Your task to perform on an android device: Show the shopping cart on amazon.com. Image 0: 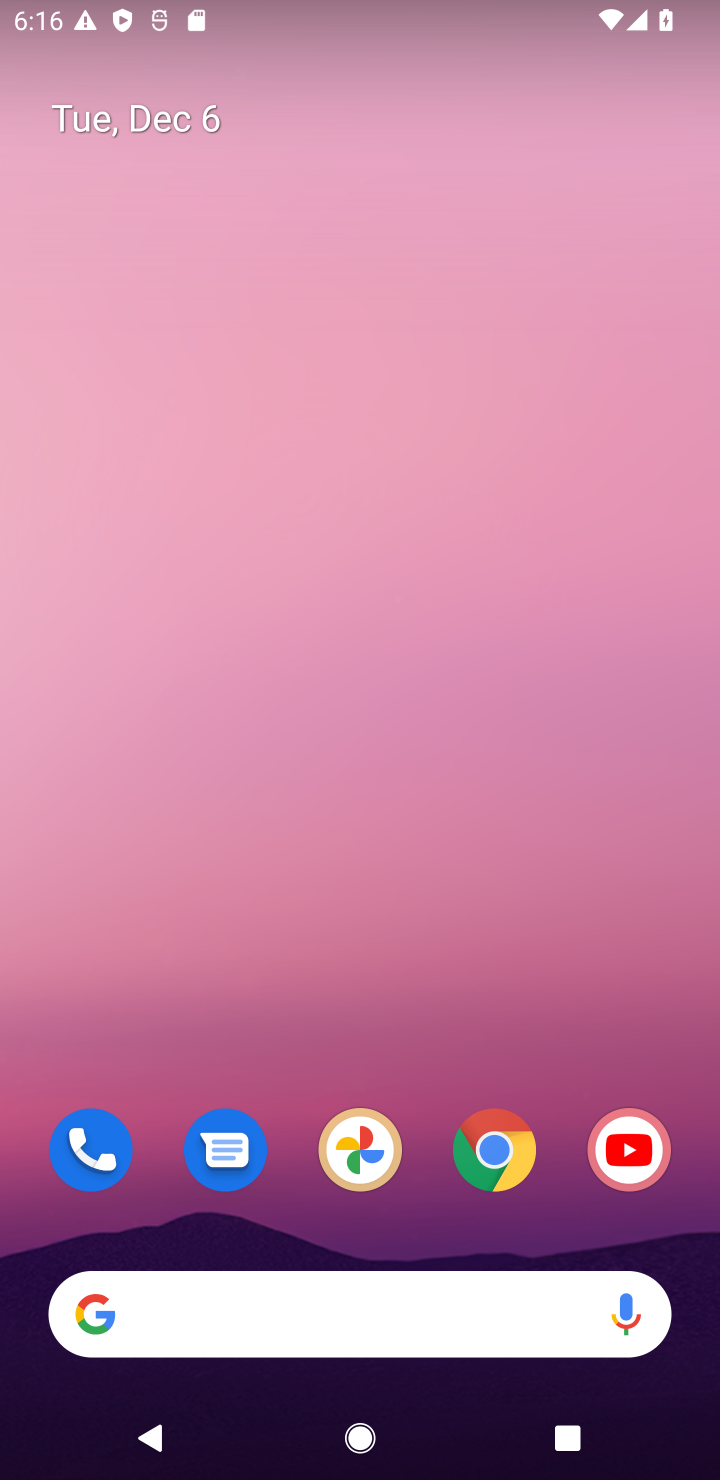
Step 0: click (505, 1162)
Your task to perform on an android device: Show the shopping cart on amazon.com. Image 1: 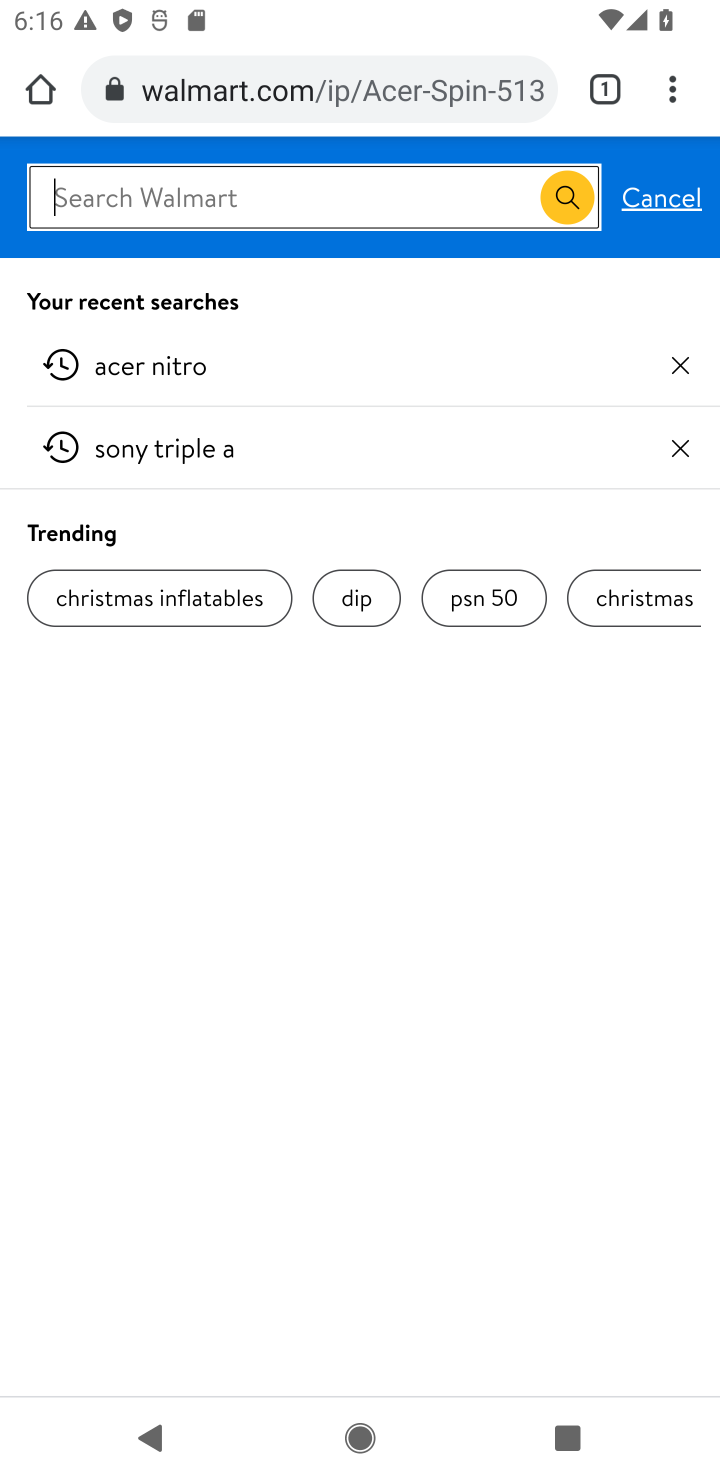
Step 1: click (252, 90)
Your task to perform on an android device: Show the shopping cart on amazon.com. Image 2: 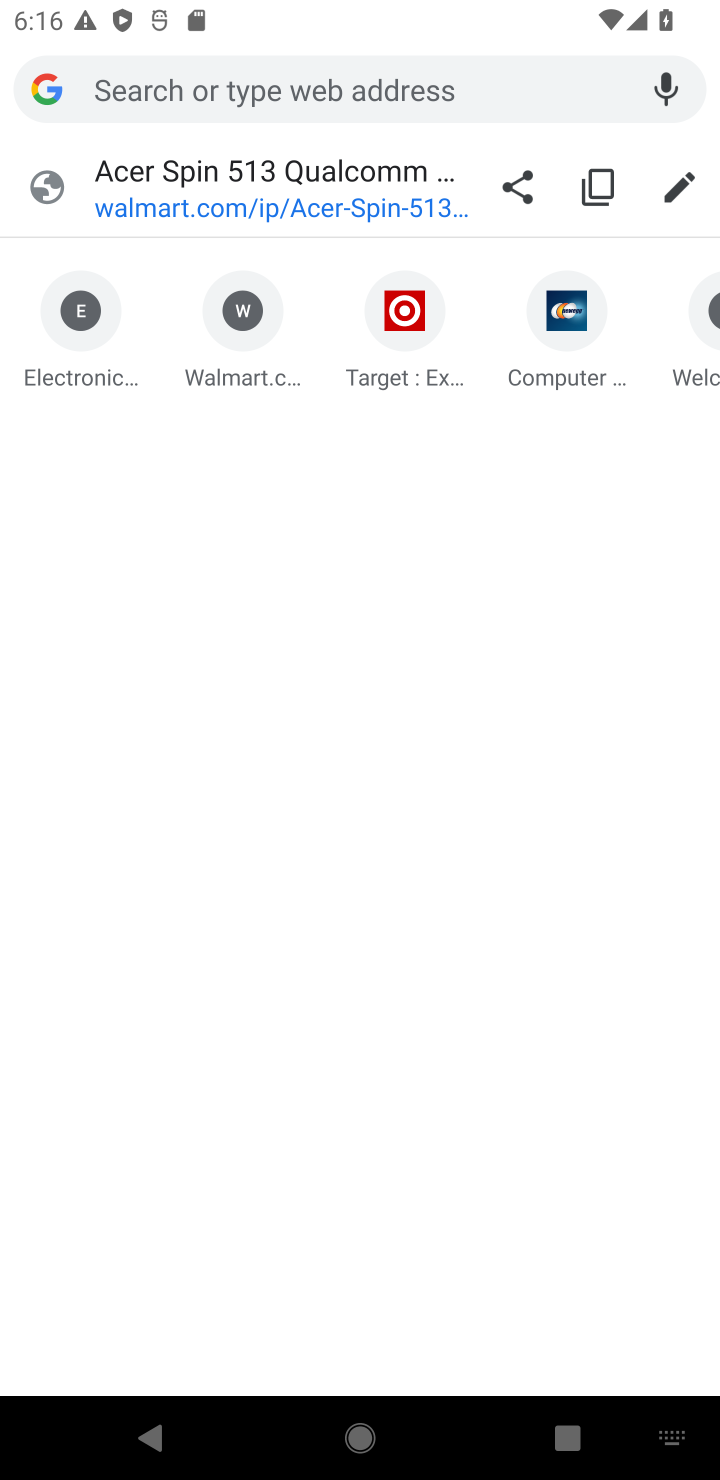
Step 2: type "amazon.com"
Your task to perform on an android device: Show the shopping cart on amazon.com. Image 3: 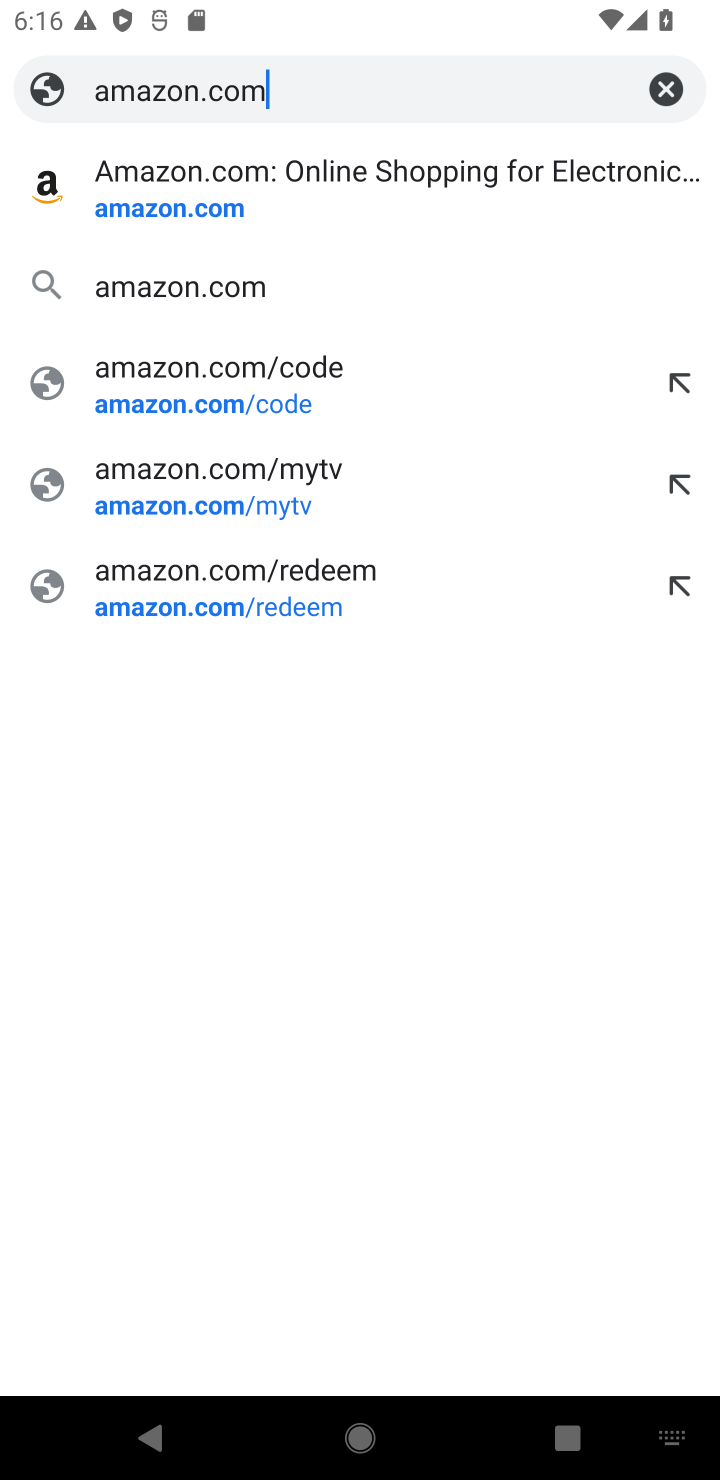
Step 3: click (194, 210)
Your task to perform on an android device: Show the shopping cart on amazon.com. Image 4: 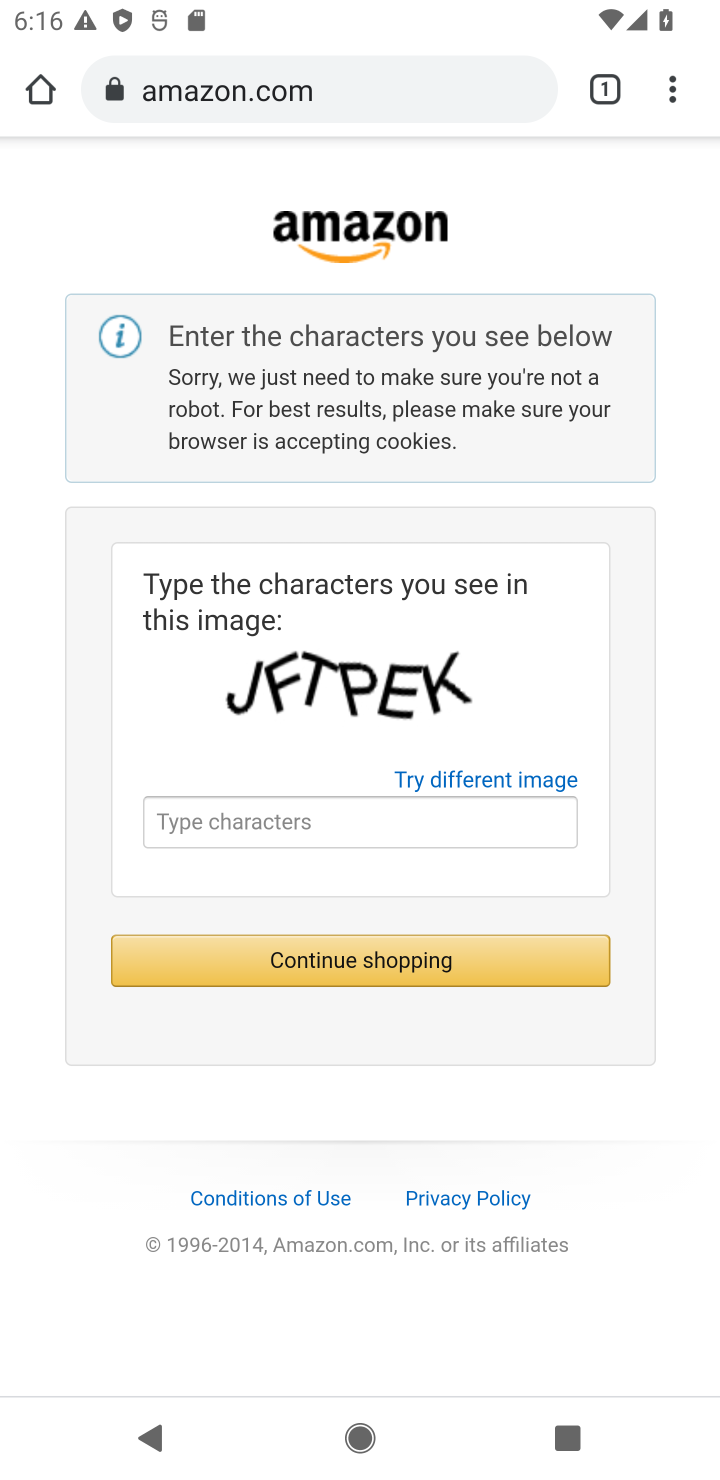
Step 4: press back button
Your task to perform on an android device: Show the shopping cart on amazon.com. Image 5: 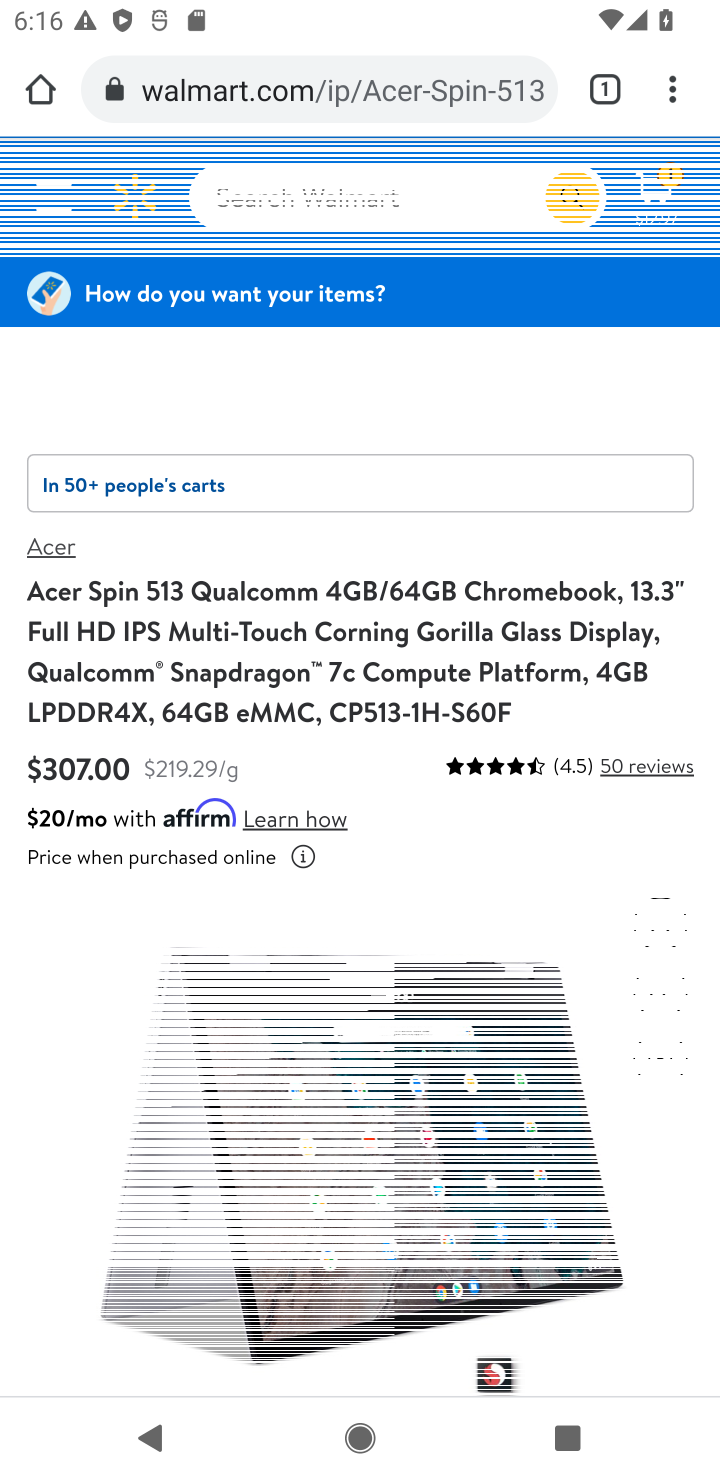
Step 5: click (285, 97)
Your task to perform on an android device: Show the shopping cart on amazon.com. Image 6: 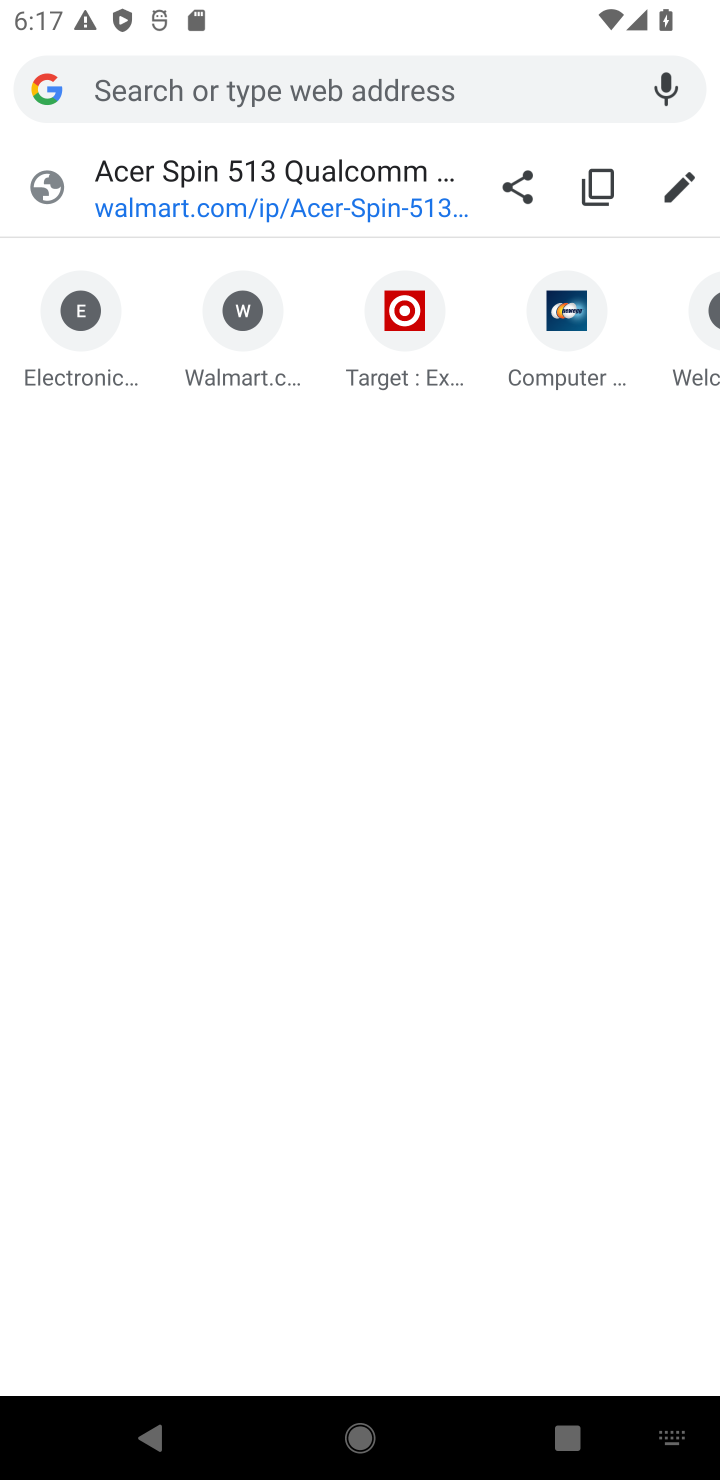
Step 6: type "amazon.com"
Your task to perform on an android device: Show the shopping cart on amazon.com. Image 7: 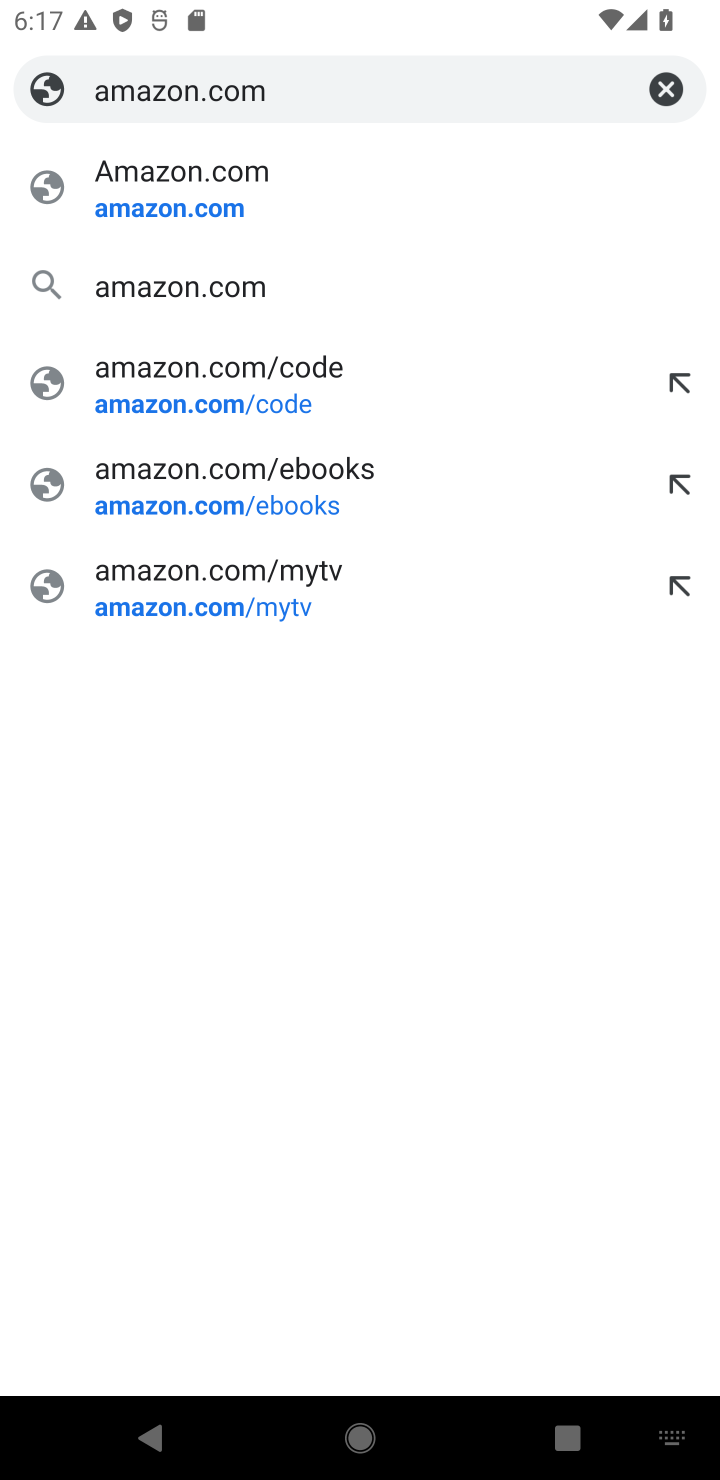
Step 7: click (199, 199)
Your task to perform on an android device: Show the shopping cart on amazon.com. Image 8: 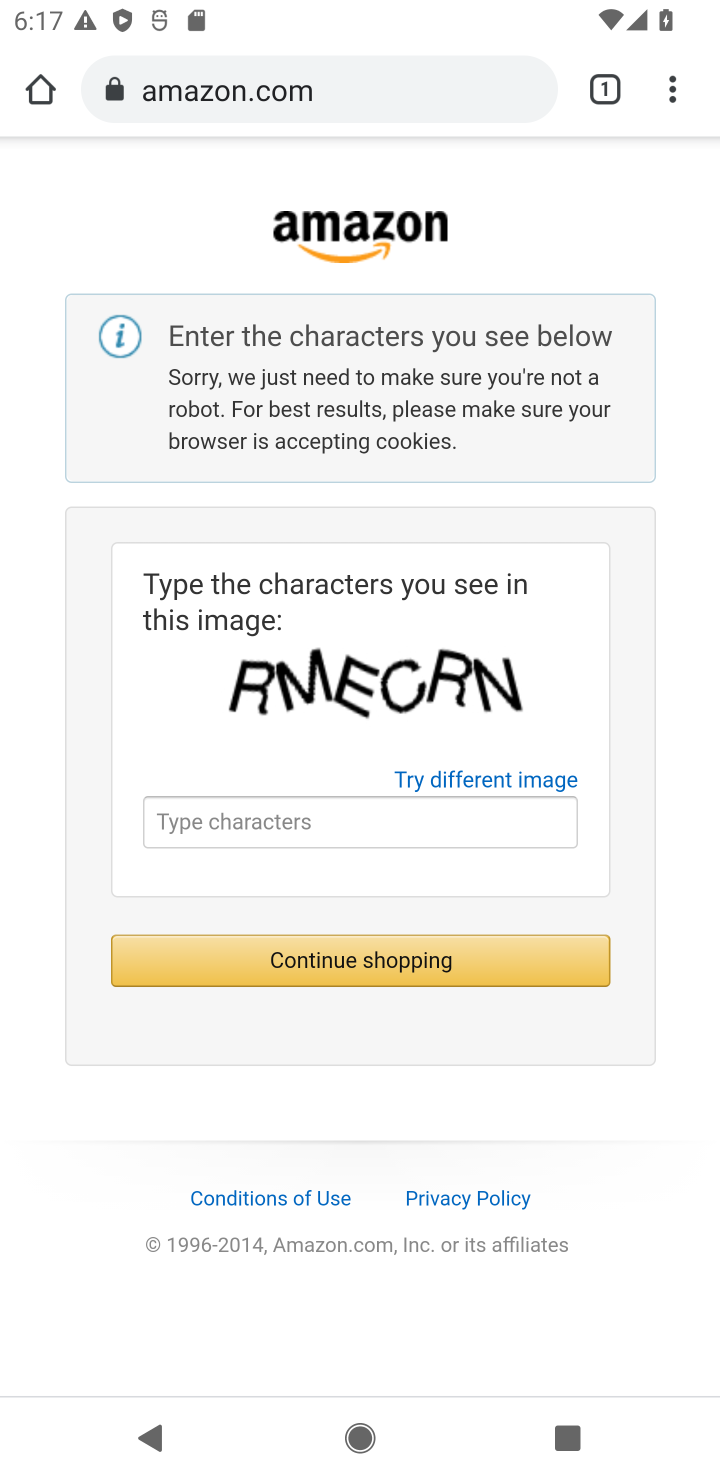
Step 8: click (345, 965)
Your task to perform on an android device: Show the shopping cart on amazon.com. Image 9: 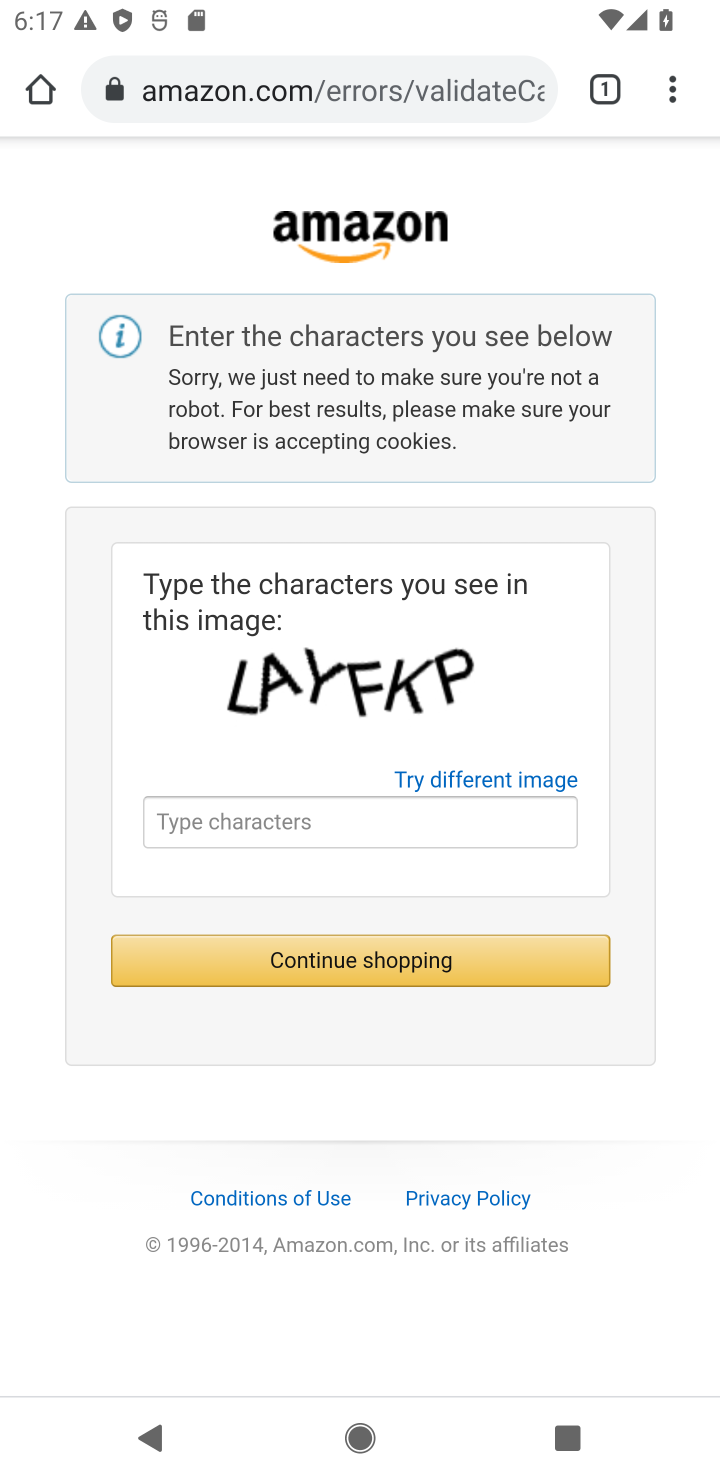
Step 9: click (215, 814)
Your task to perform on an android device: Show the shopping cart on amazon.com. Image 10: 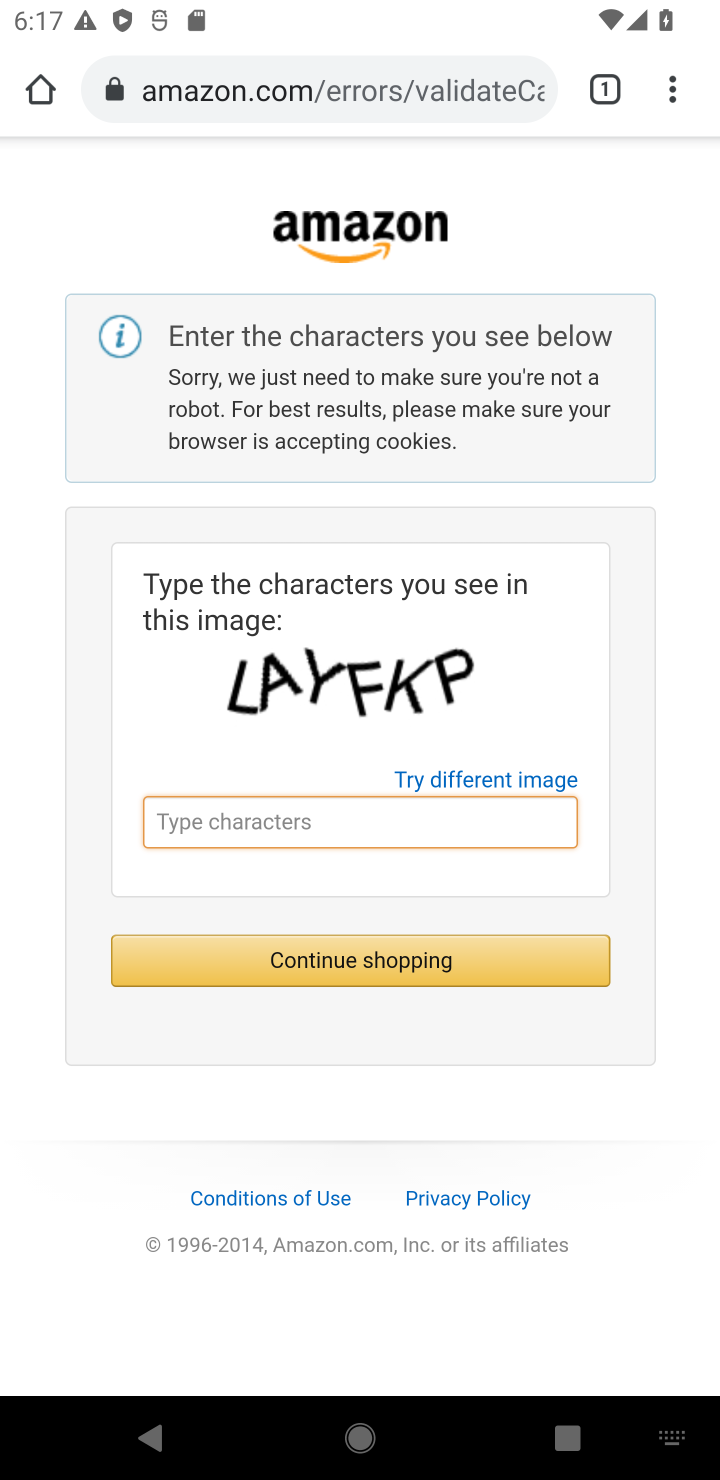
Step 10: type "LAYFKP"
Your task to perform on an android device: Show the shopping cart on amazon.com. Image 11: 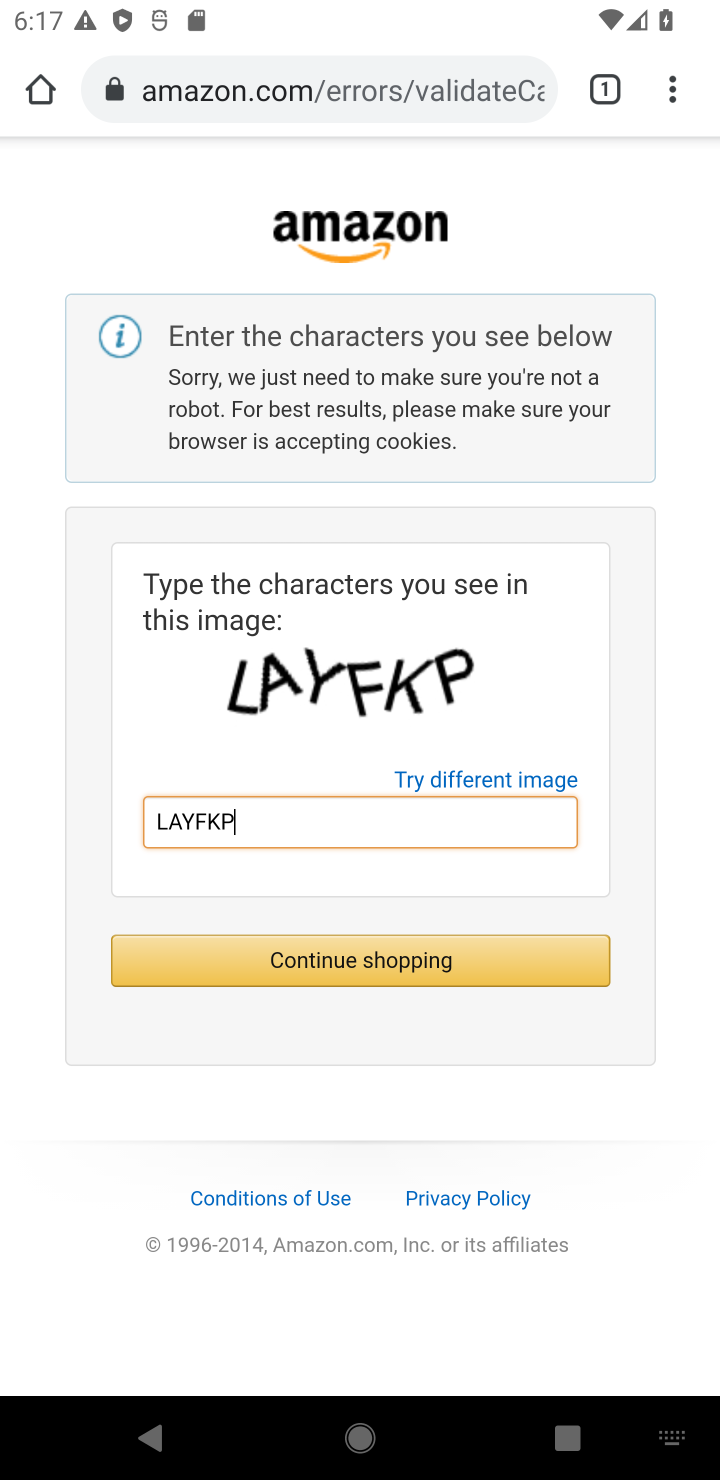
Step 11: click (406, 962)
Your task to perform on an android device: Show the shopping cart on amazon.com. Image 12: 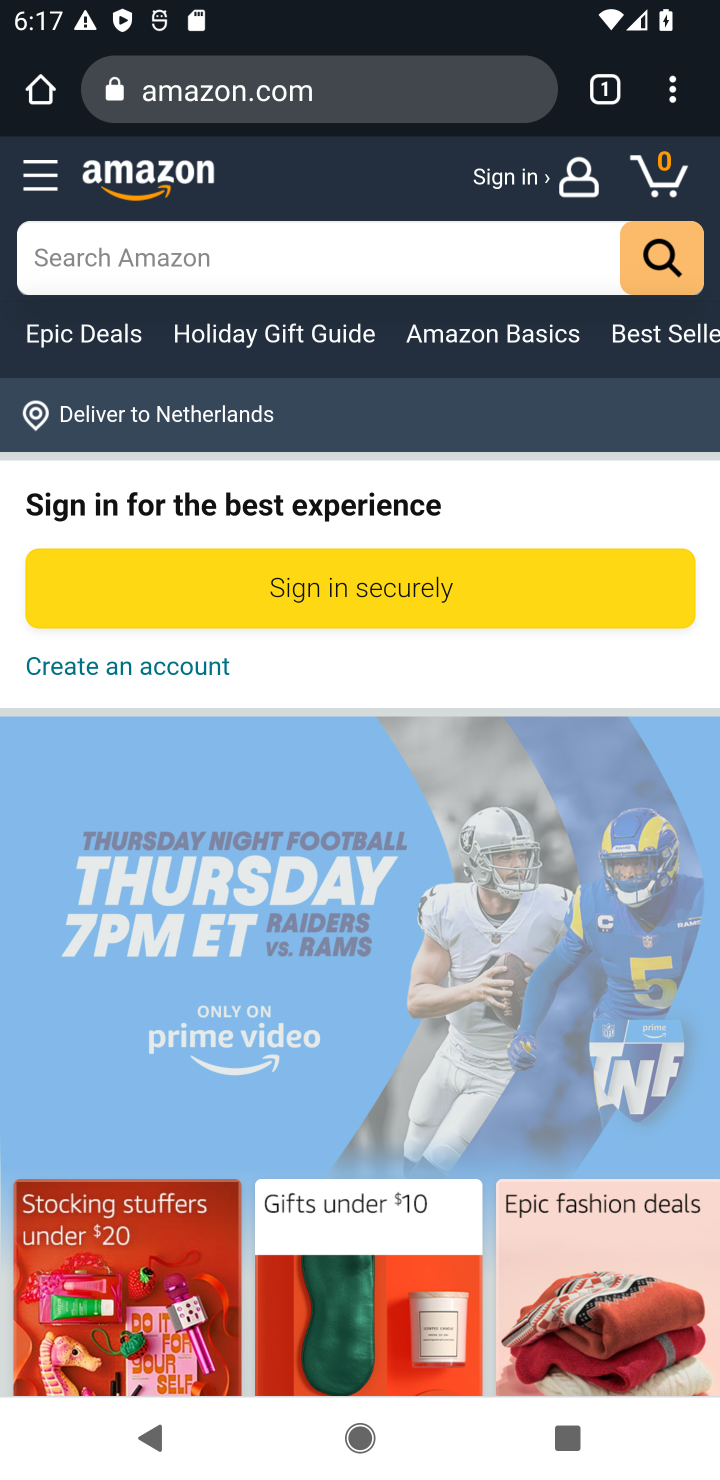
Step 12: click (666, 183)
Your task to perform on an android device: Show the shopping cart on amazon.com. Image 13: 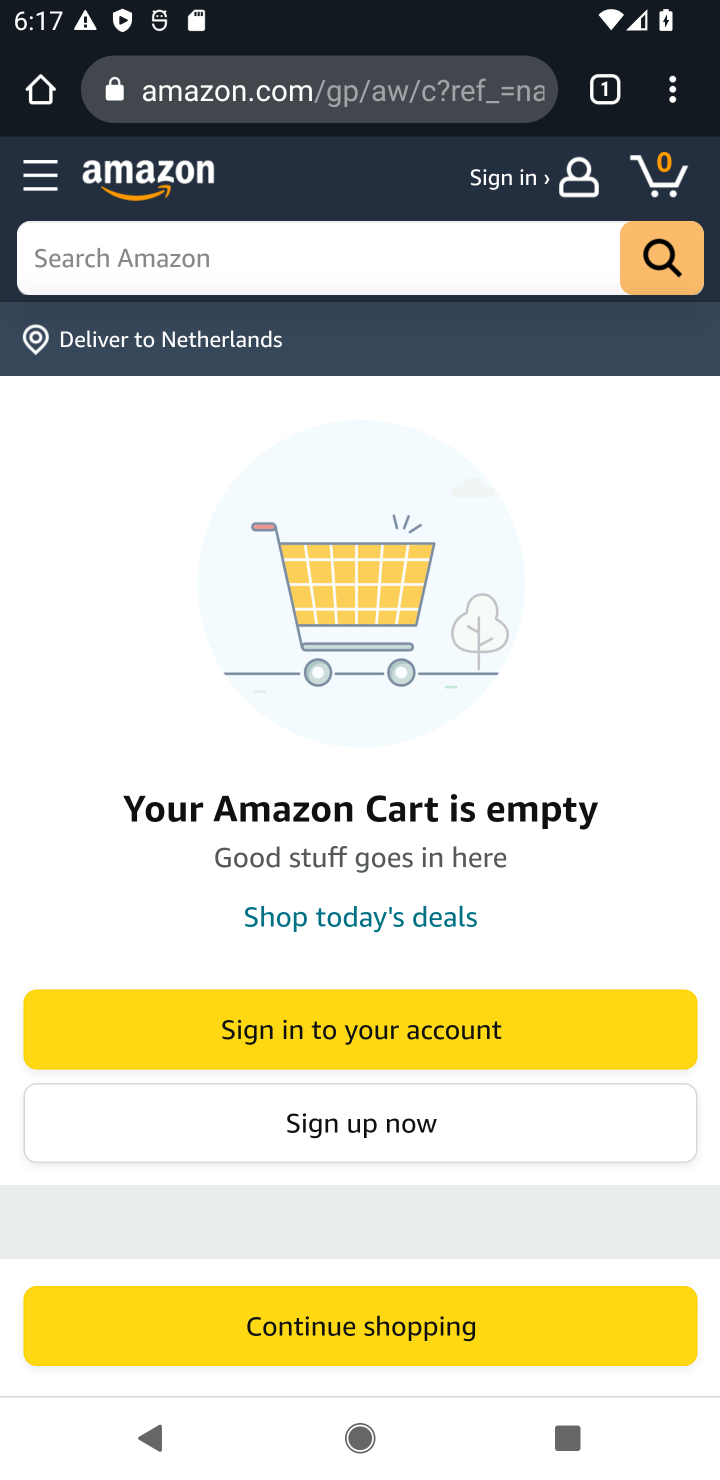
Step 13: task complete